Your task to perform on an android device: open device folders in google photos Image 0: 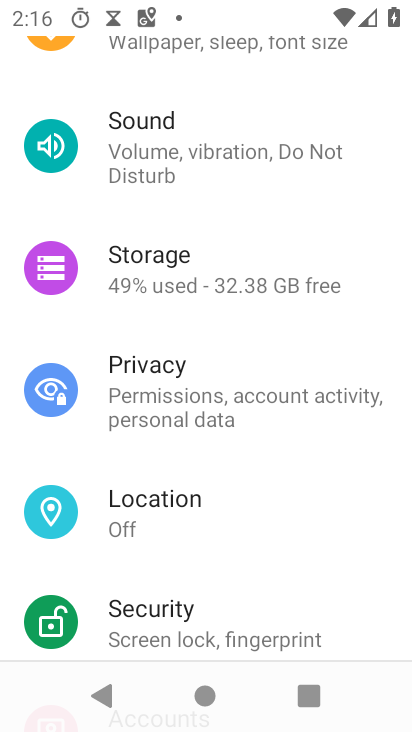
Step 0: press home button
Your task to perform on an android device: open device folders in google photos Image 1: 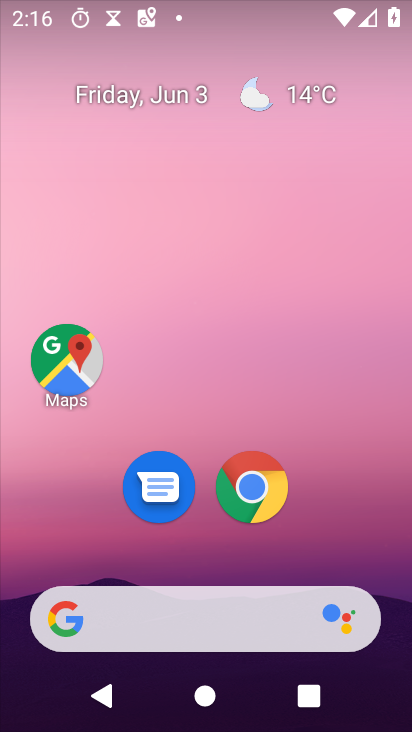
Step 1: drag from (333, 556) to (233, 44)
Your task to perform on an android device: open device folders in google photos Image 2: 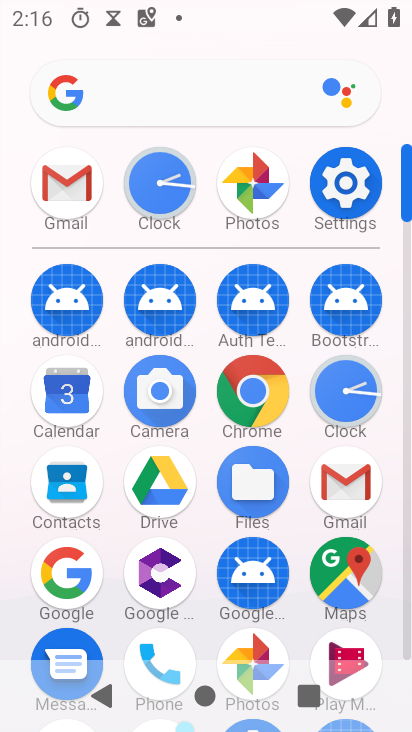
Step 2: click (262, 651)
Your task to perform on an android device: open device folders in google photos Image 3: 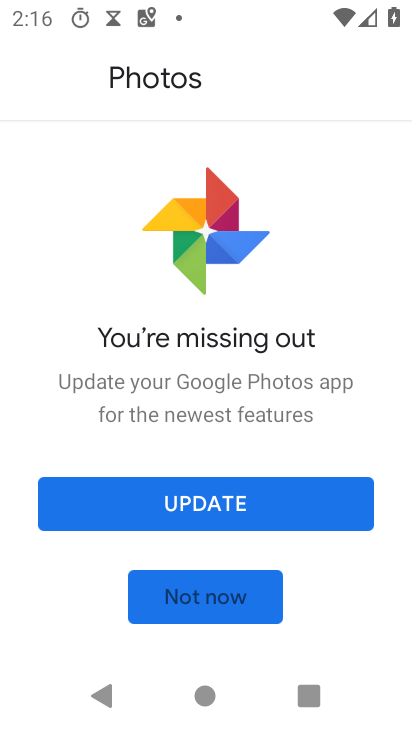
Step 3: click (284, 510)
Your task to perform on an android device: open device folders in google photos Image 4: 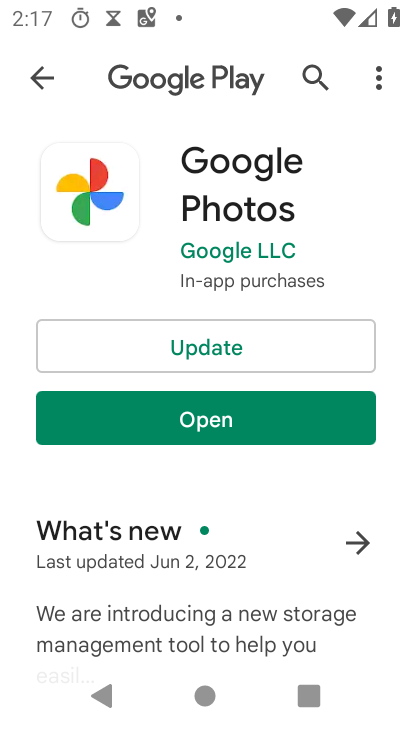
Step 4: click (212, 345)
Your task to perform on an android device: open device folders in google photos Image 5: 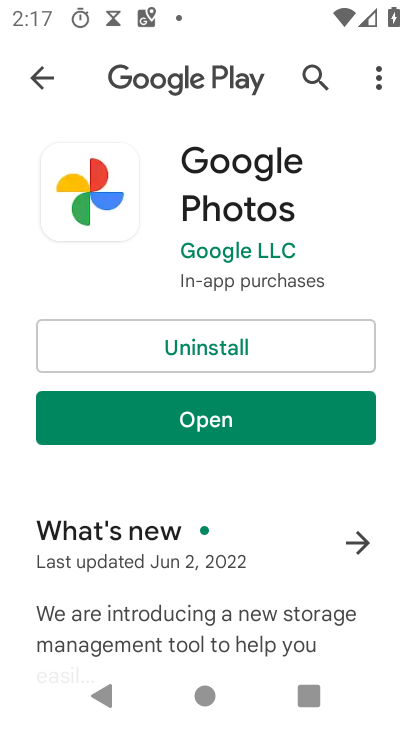
Step 5: click (286, 416)
Your task to perform on an android device: open device folders in google photos Image 6: 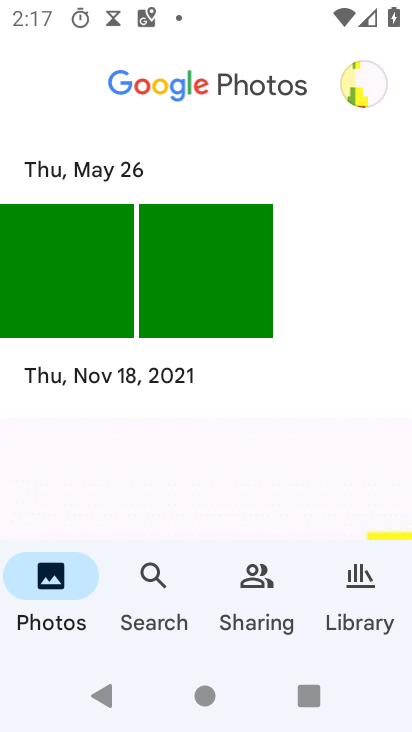
Step 6: click (364, 87)
Your task to perform on an android device: open device folders in google photos Image 7: 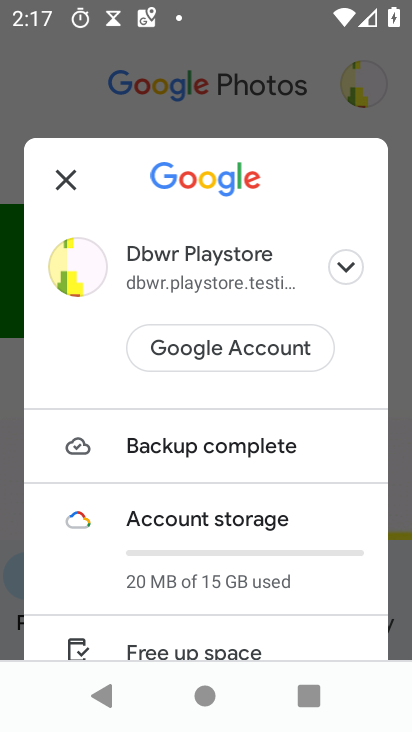
Step 7: drag from (227, 595) to (204, 183)
Your task to perform on an android device: open device folders in google photos Image 8: 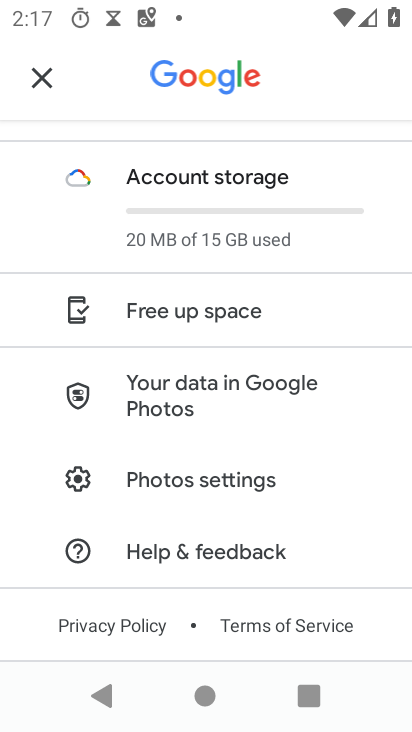
Step 8: click (39, 84)
Your task to perform on an android device: open device folders in google photos Image 9: 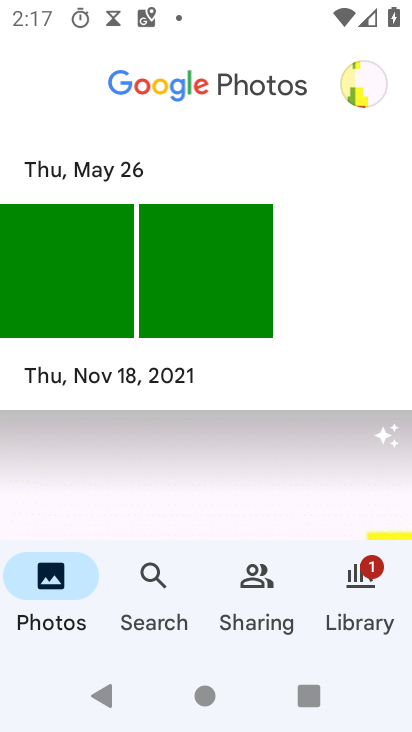
Step 9: click (163, 610)
Your task to perform on an android device: open device folders in google photos Image 10: 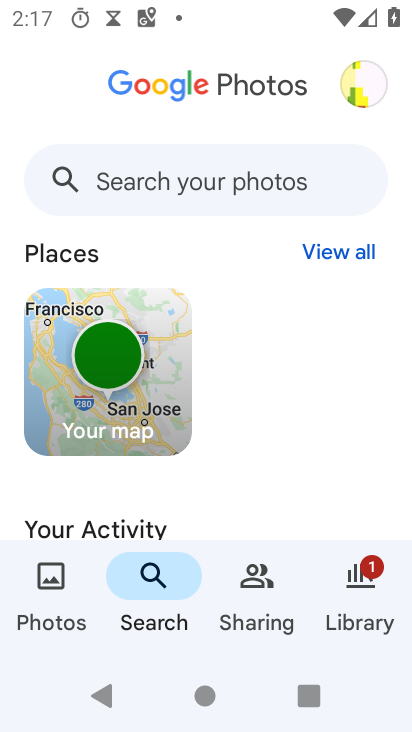
Step 10: click (160, 182)
Your task to perform on an android device: open device folders in google photos Image 11: 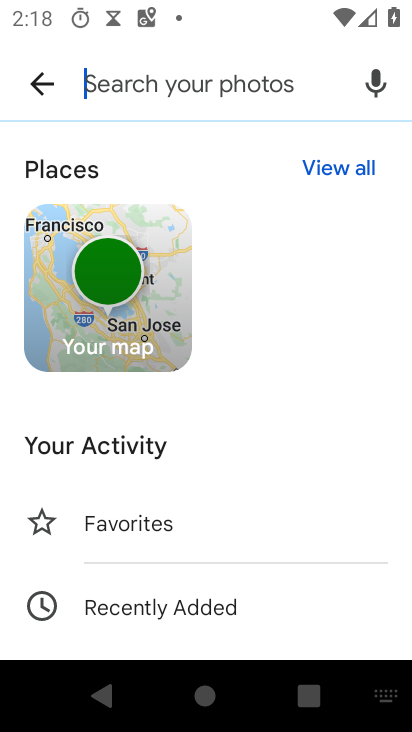
Step 11: type "device folders"
Your task to perform on an android device: open device folders in google photos Image 12: 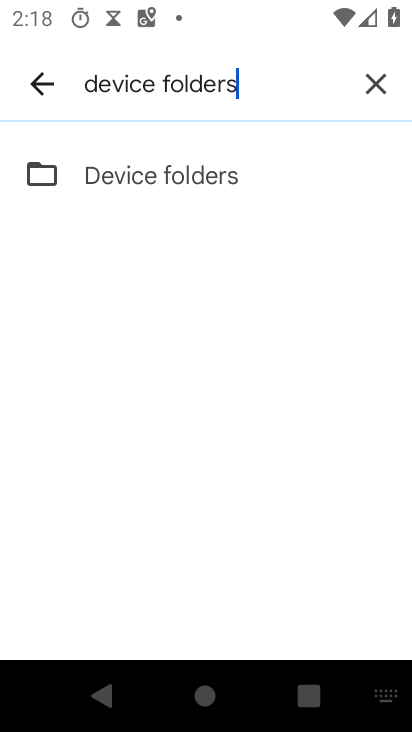
Step 12: click (179, 157)
Your task to perform on an android device: open device folders in google photos Image 13: 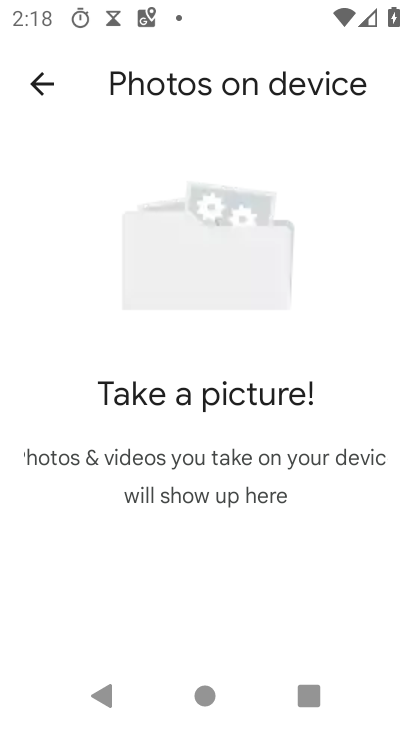
Step 13: task complete